Your task to perform on an android device: Search for Italian restaurants on Maps Image 0: 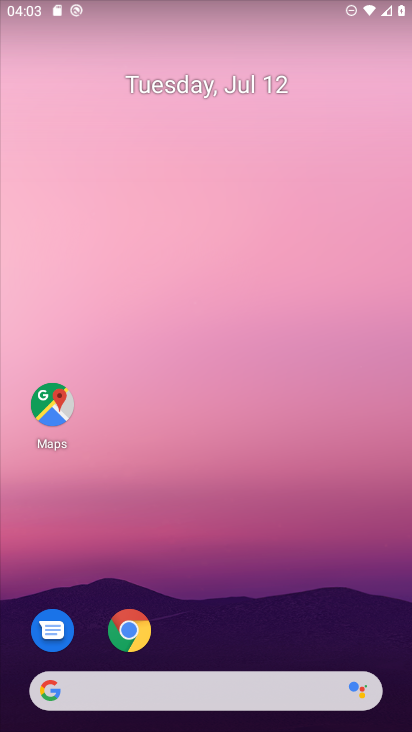
Step 0: click (49, 405)
Your task to perform on an android device: Search for Italian restaurants on Maps Image 1: 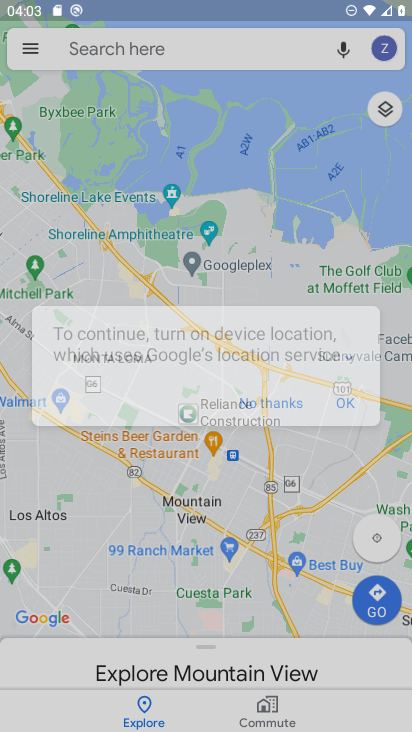
Step 1: click (121, 49)
Your task to perform on an android device: Search for Italian restaurants on Maps Image 2: 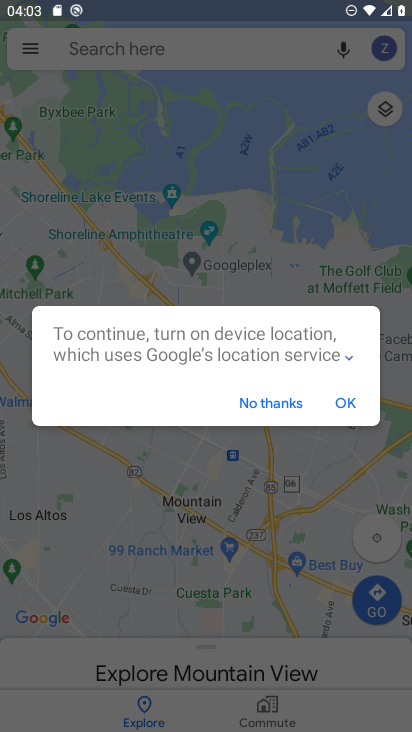
Step 2: click (346, 403)
Your task to perform on an android device: Search for Italian restaurants on Maps Image 3: 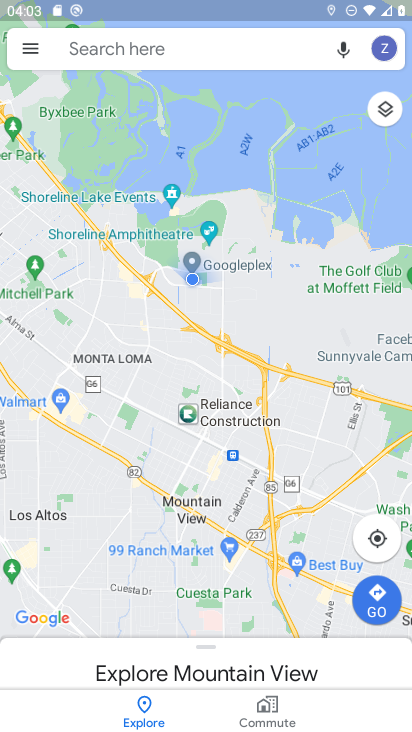
Step 3: click (116, 43)
Your task to perform on an android device: Search for Italian restaurants on Maps Image 4: 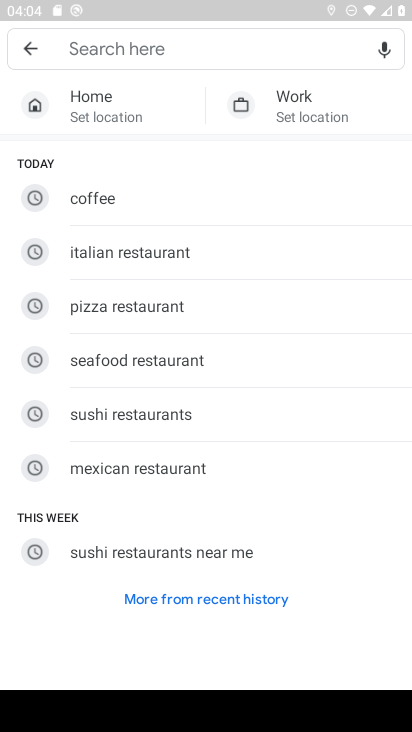
Step 4: type "italian restaurants"
Your task to perform on an android device: Search for Italian restaurants on Maps Image 5: 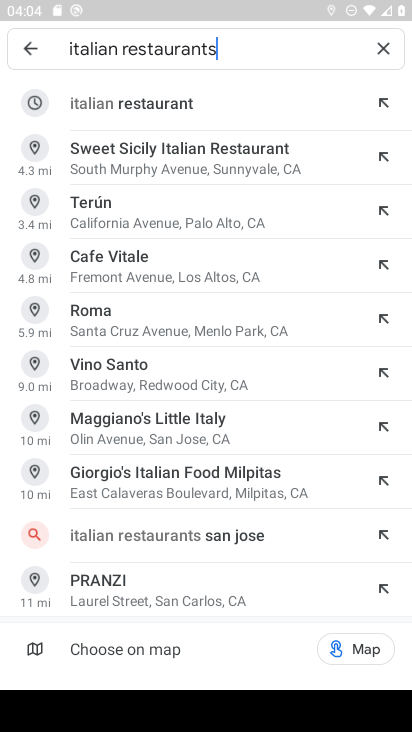
Step 5: click (142, 98)
Your task to perform on an android device: Search for Italian restaurants on Maps Image 6: 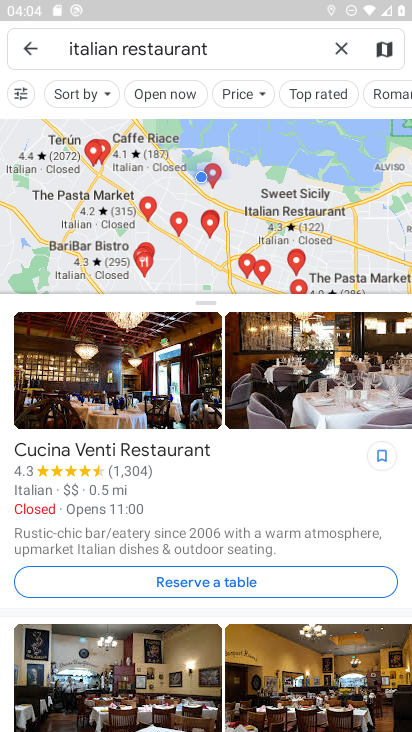
Step 6: task complete